Your task to perform on an android device: Play the last video I watched on Youtube Image 0: 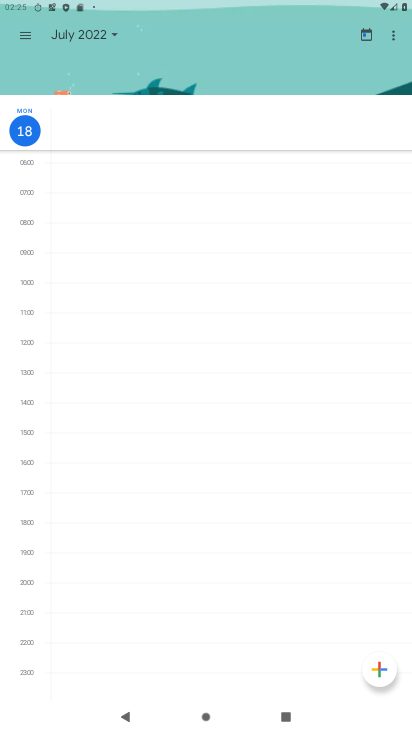
Step 0: press home button
Your task to perform on an android device: Play the last video I watched on Youtube Image 1: 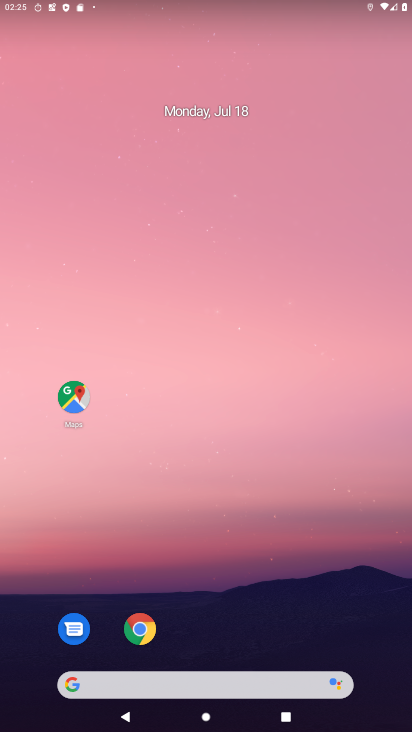
Step 1: drag from (239, 637) to (249, 151)
Your task to perform on an android device: Play the last video I watched on Youtube Image 2: 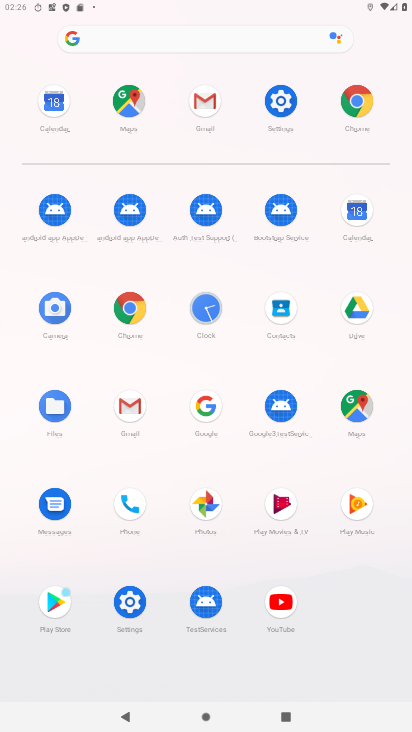
Step 2: click (280, 599)
Your task to perform on an android device: Play the last video I watched on Youtube Image 3: 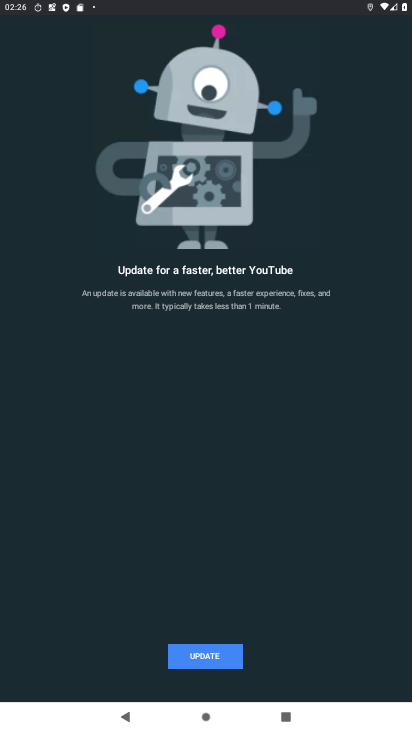
Step 3: click (203, 653)
Your task to perform on an android device: Play the last video I watched on Youtube Image 4: 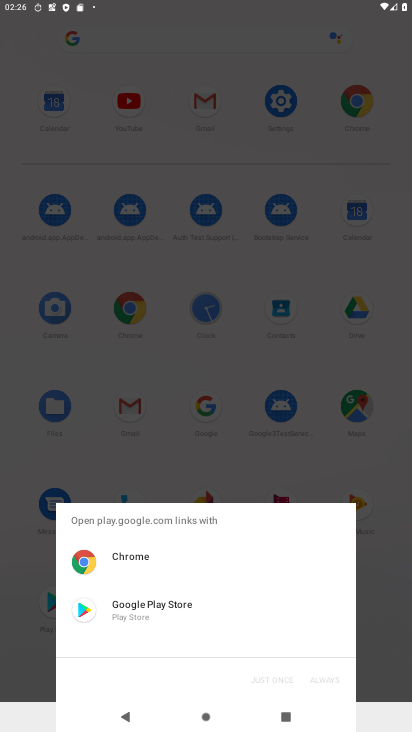
Step 4: click (130, 613)
Your task to perform on an android device: Play the last video I watched on Youtube Image 5: 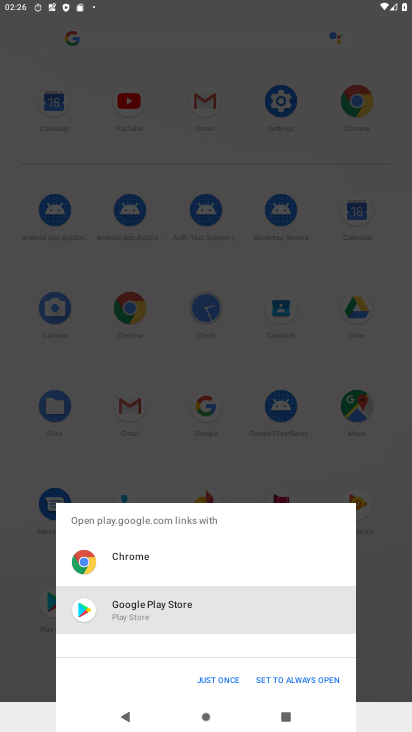
Step 5: click (208, 678)
Your task to perform on an android device: Play the last video I watched on Youtube Image 6: 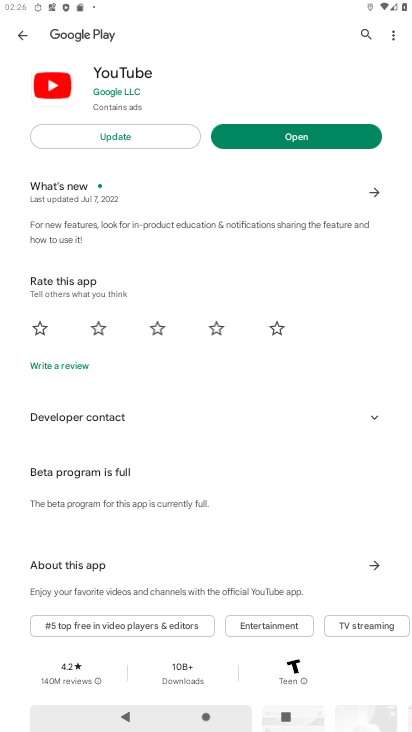
Step 6: click (107, 135)
Your task to perform on an android device: Play the last video I watched on Youtube Image 7: 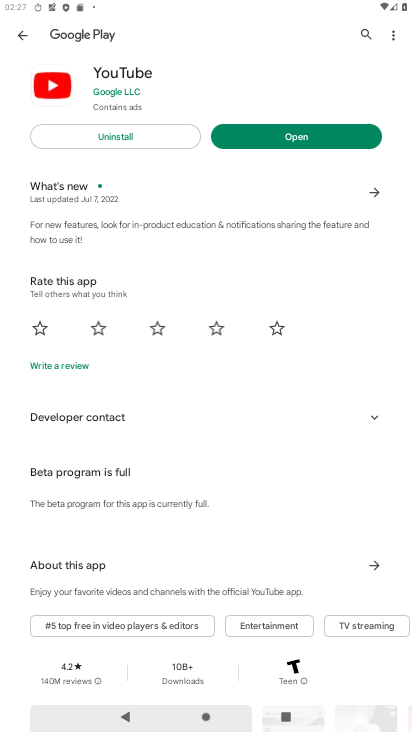
Step 7: click (295, 135)
Your task to perform on an android device: Play the last video I watched on Youtube Image 8: 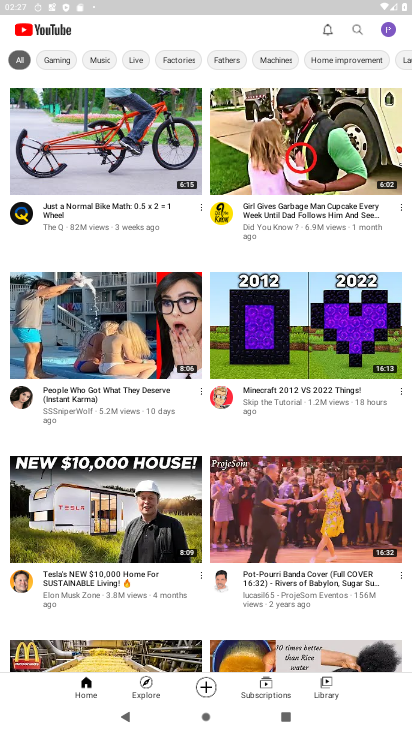
Step 8: click (320, 685)
Your task to perform on an android device: Play the last video I watched on Youtube Image 9: 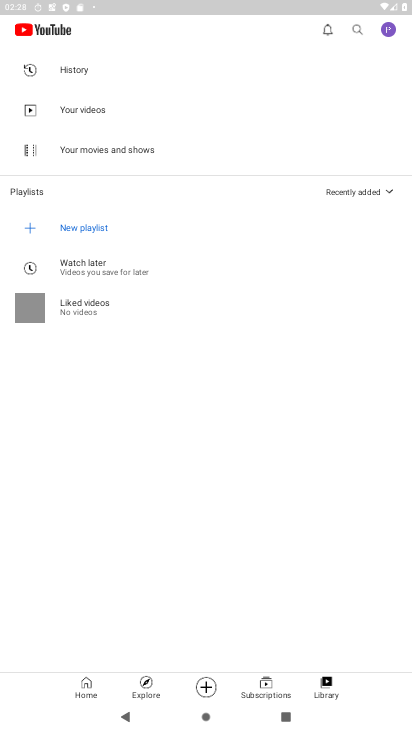
Step 9: click (101, 64)
Your task to perform on an android device: Play the last video I watched on Youtube Image 10: 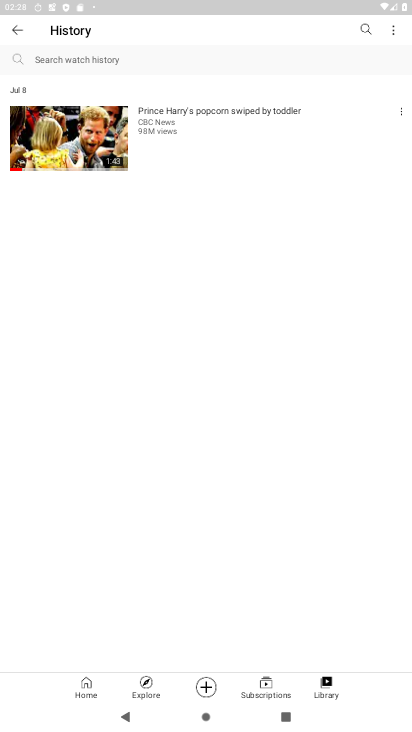
Step 10: click (99, 142)
Your task to perform on an android device: Play the last video I watched on Youtube Image 11: 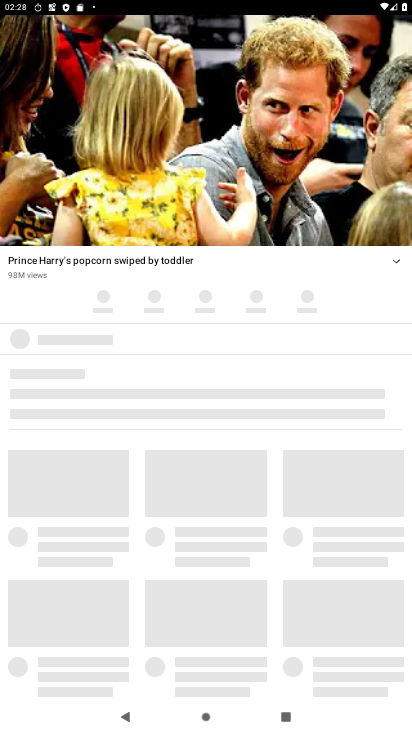
Step 11: task complete